Your task to perform on an android device: Open Youtube and go to "Your channel" Image 0: 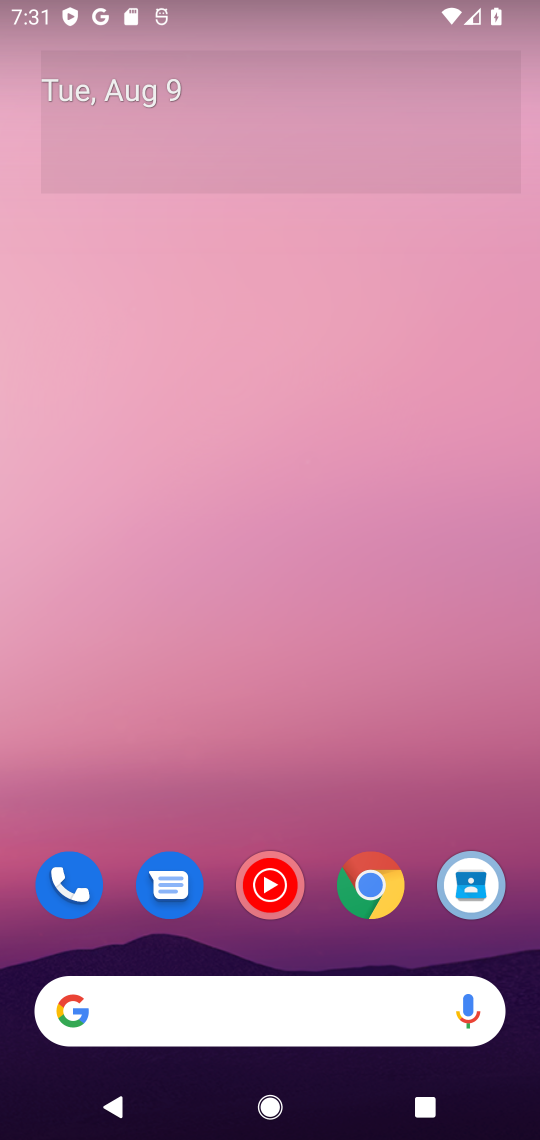
Step 0: drag from (371, 723) to (321, 62)
Your task to perform on an android device: Open Youtube and go to "Your channel" Image 1: 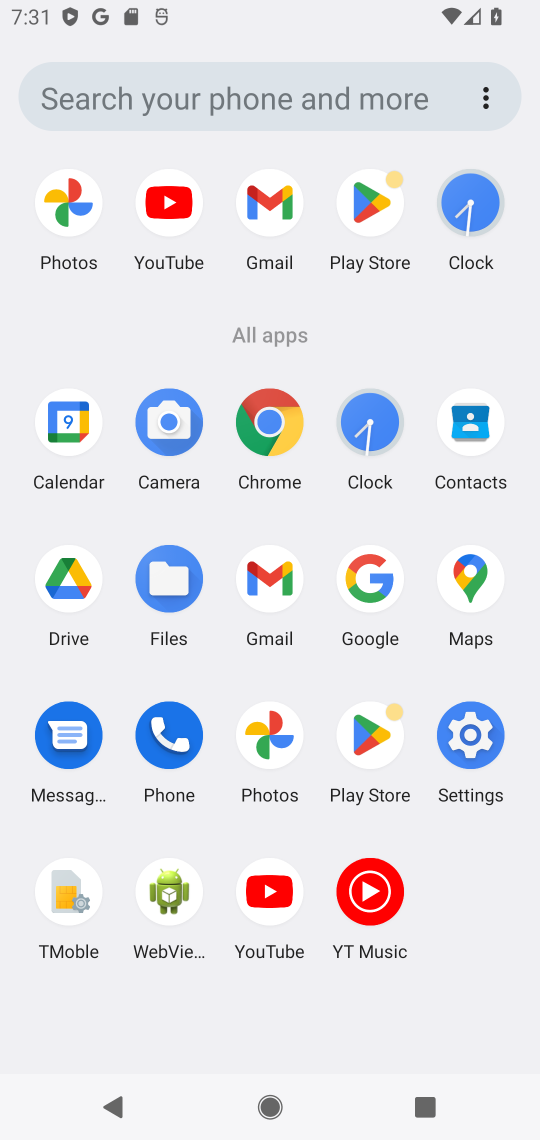
Step 1: click (269, 885)
Your task to perform on an android device: Open Youtube and go to "Your channel" Image 2: 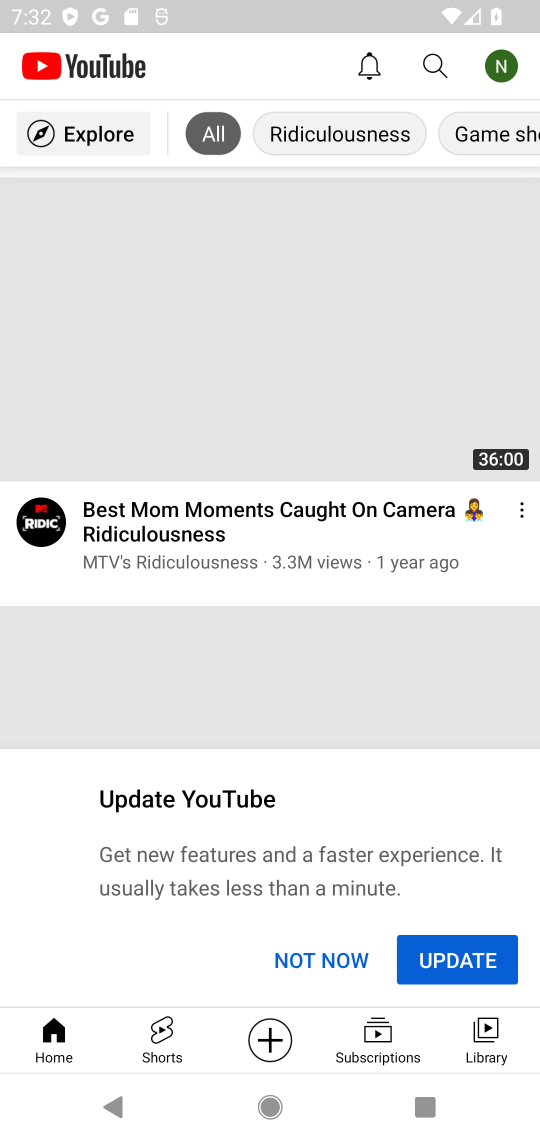
Step 2: task complete